Your task to perform on an android device: open app "Fetch Rewards" Image 0: 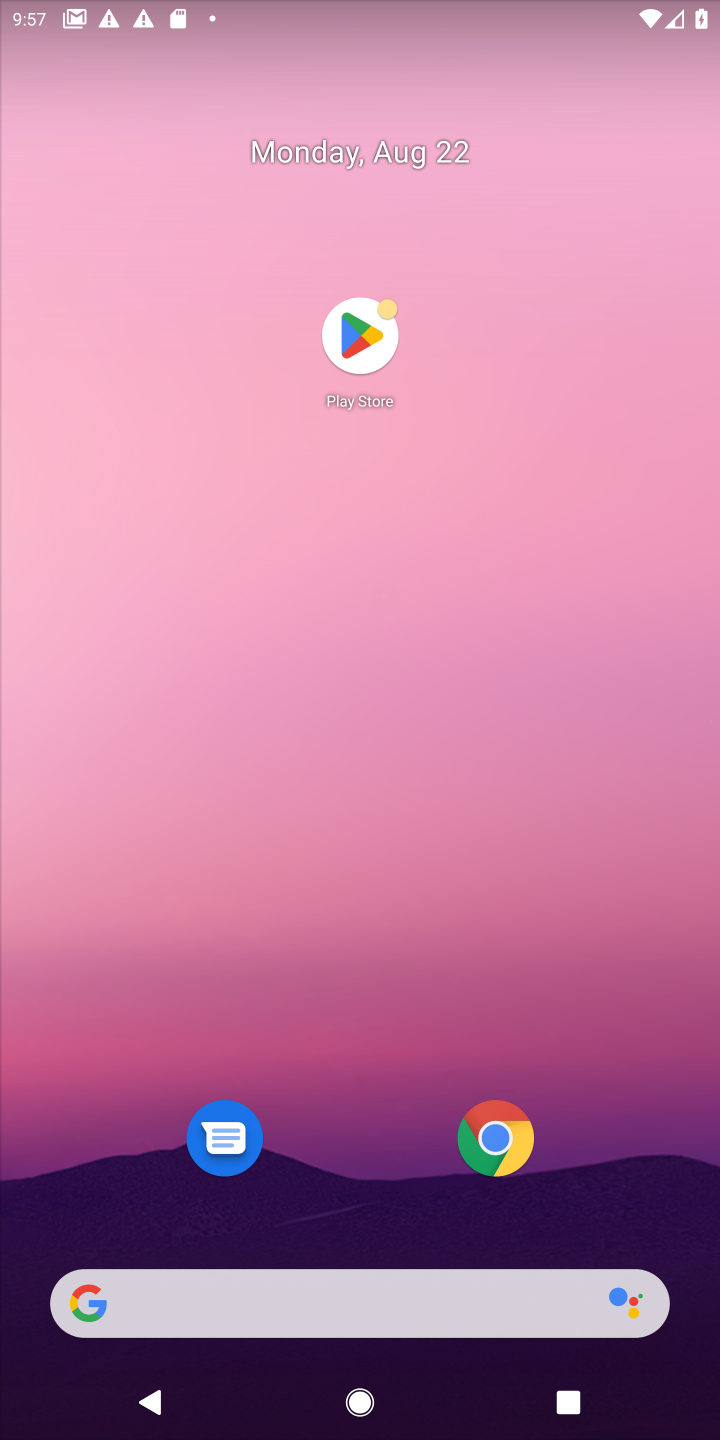
Step 0: click (381, 332)
Your task to perform on an android device: open app "Fetch Rewards" Image 1: 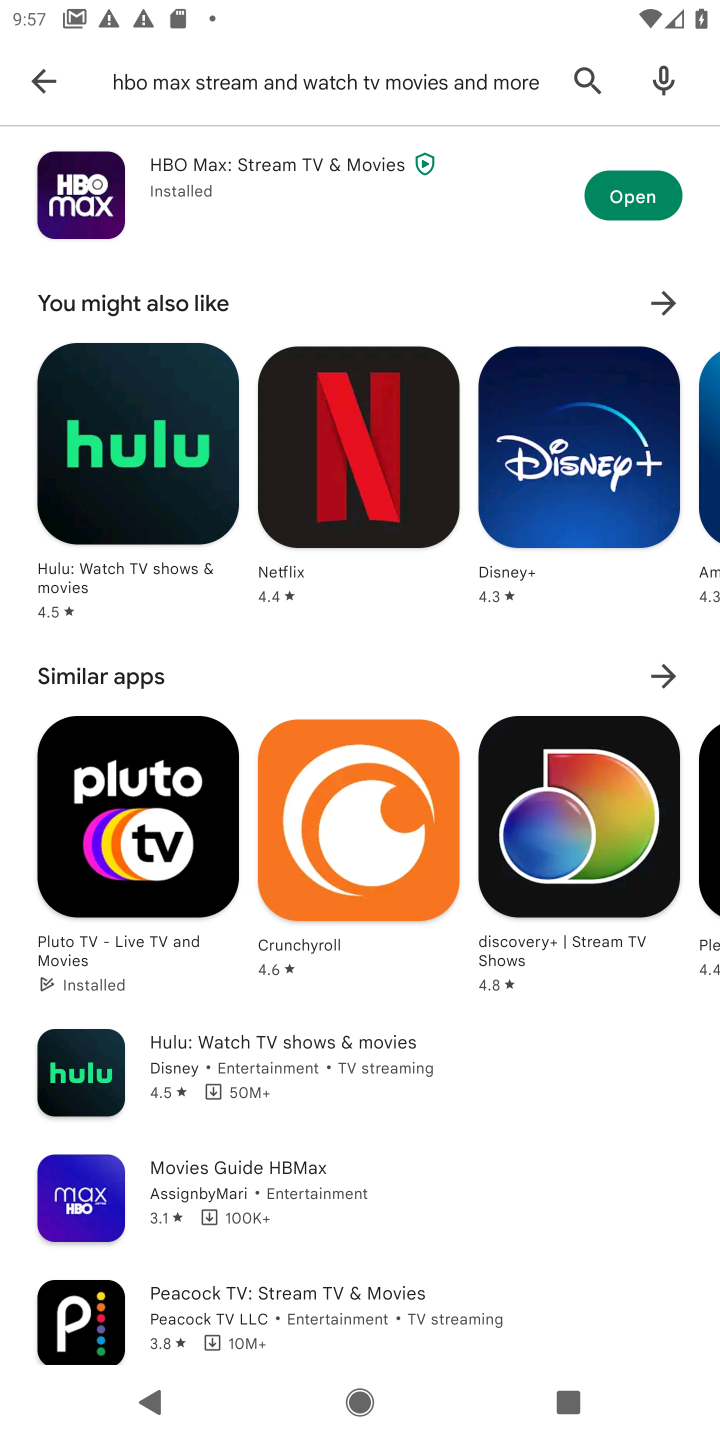
Step 1: click (574, 72)
Your task to perform on an android device: open app "Fetch Rewards" Image 2: 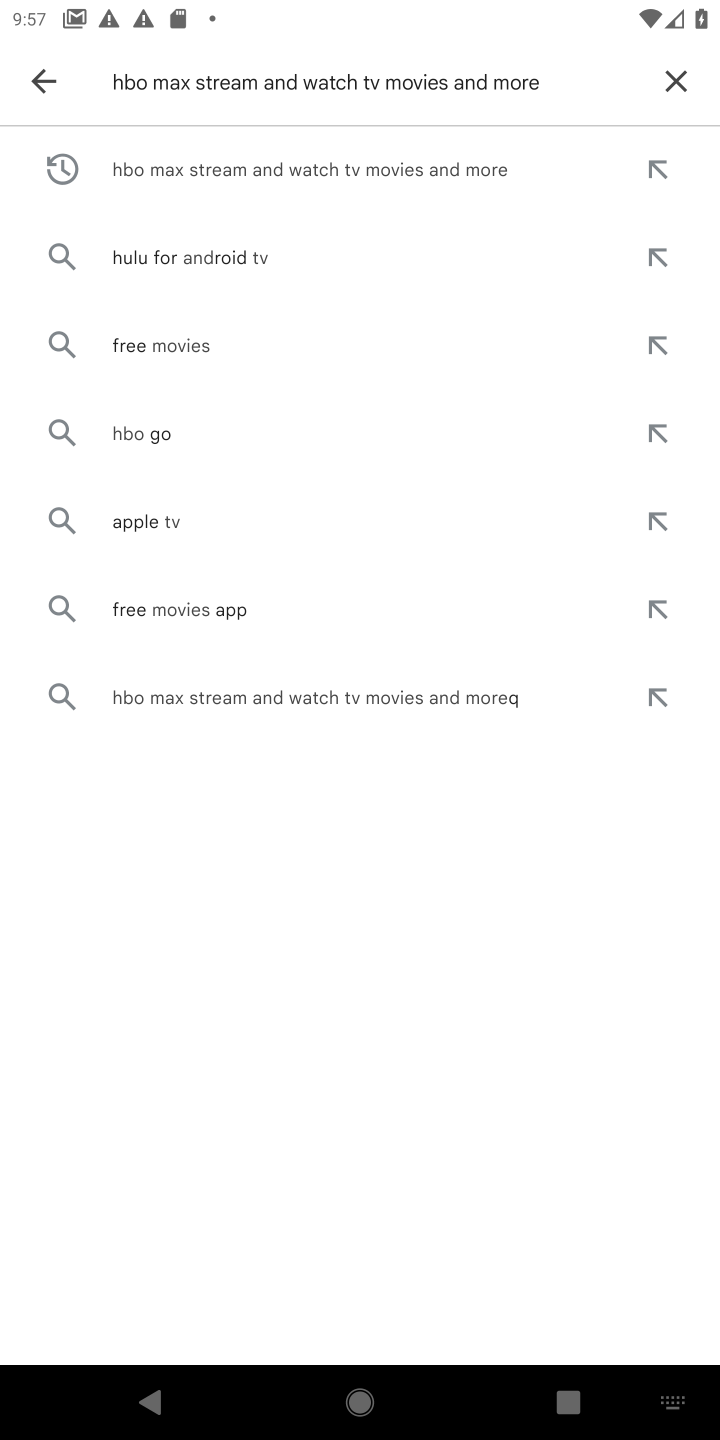
Step 2: click (674, 81)
Your task to perform on an android device: open app "Fetch Rewards" Image 3: 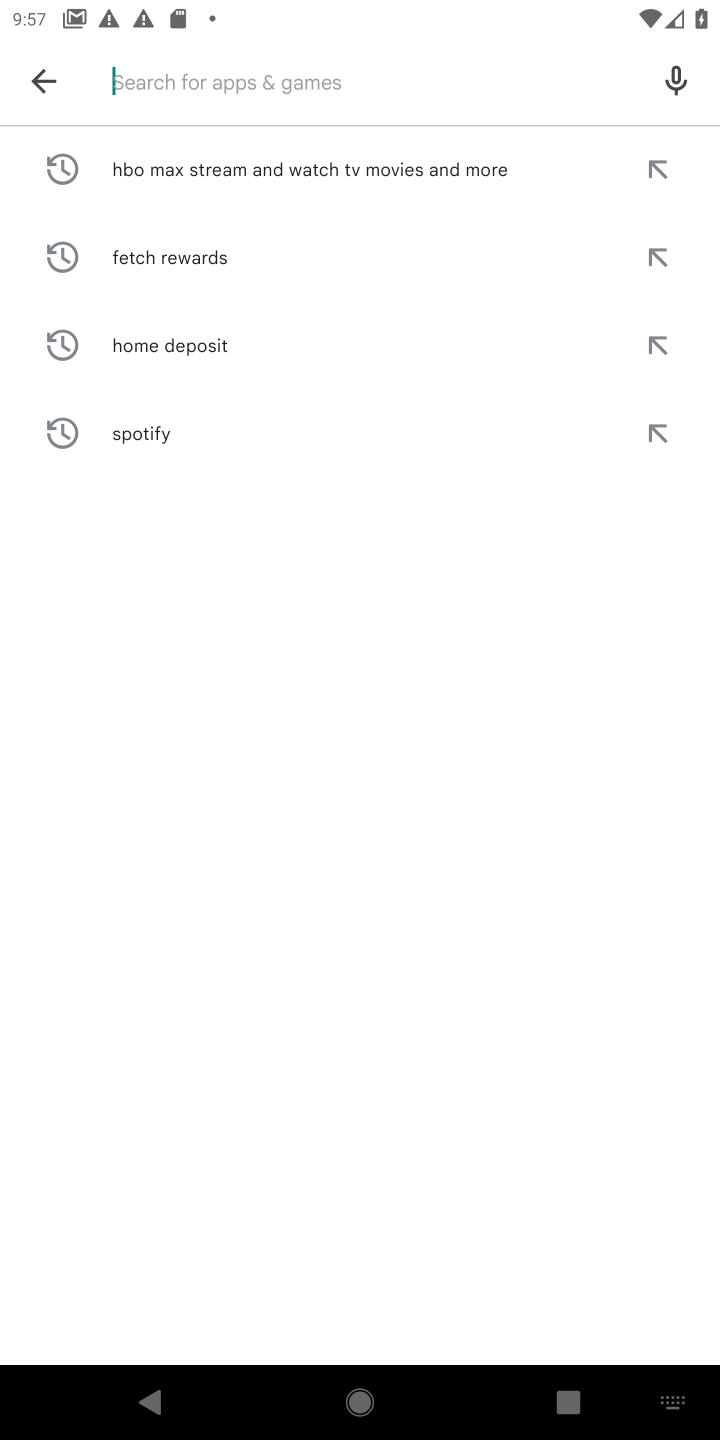
Step 3: type "Fetch Rewards""
Your task to perform on an android device: open app "Fetch Rewards" Image 4: 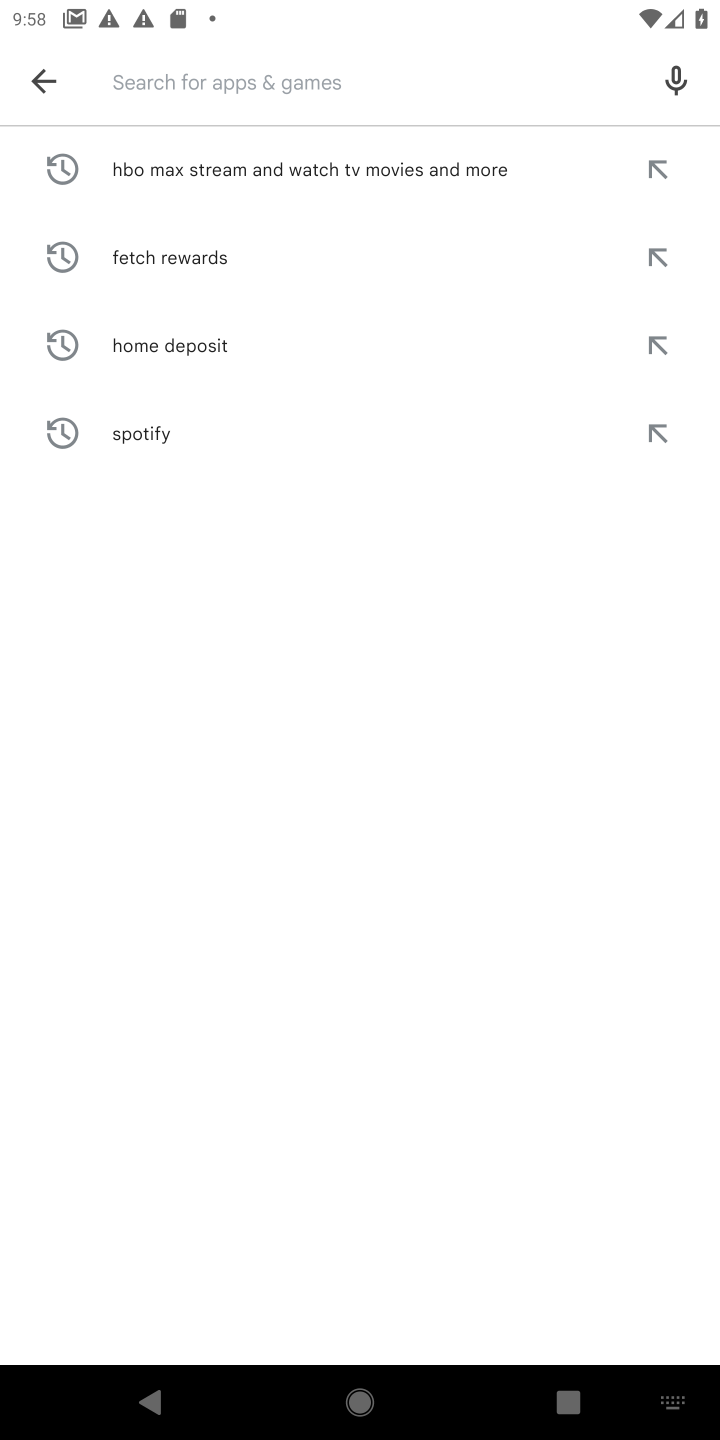
Step 4: type "fetch rewards"
Your task to perform on an android device: open app "Fetch Rewards" Image 5: 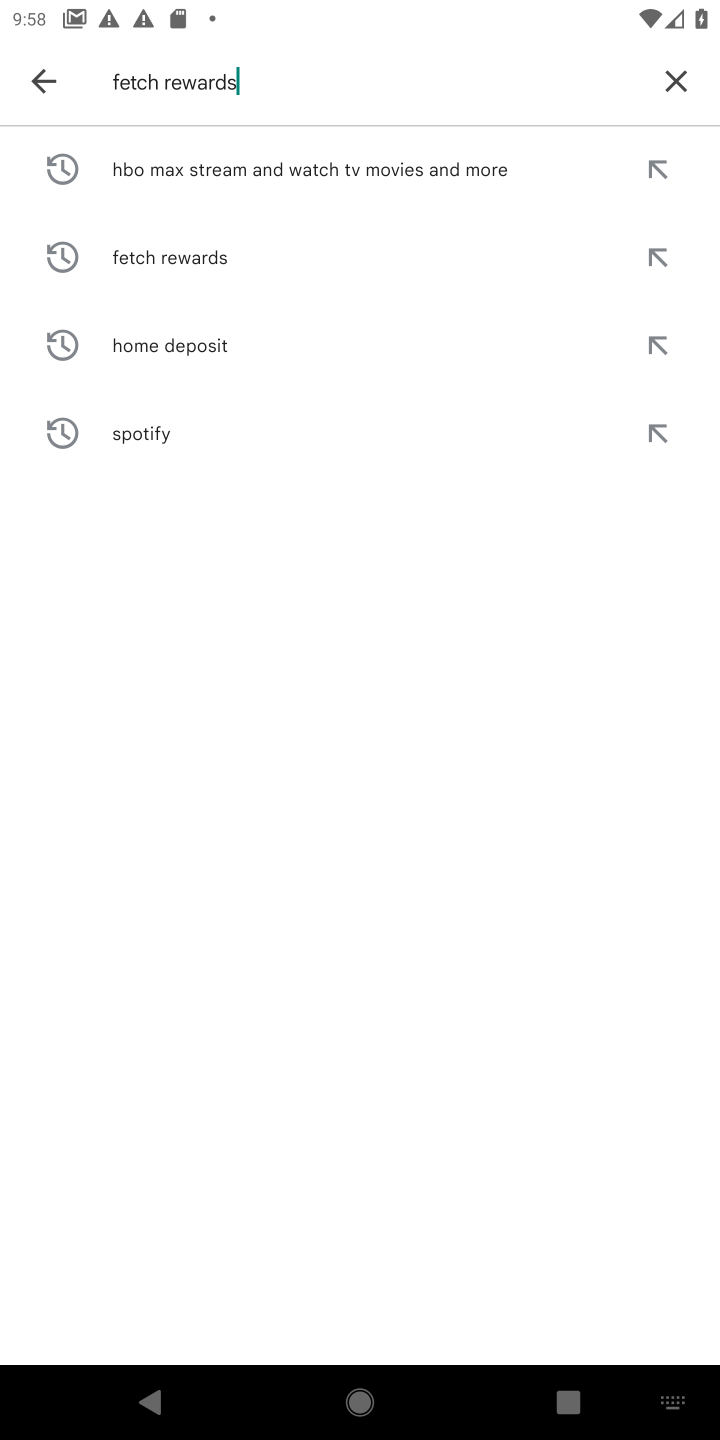
Step 5: type ""
Your task to perform on an android device: open app "Fetch Rewards" Image 6: 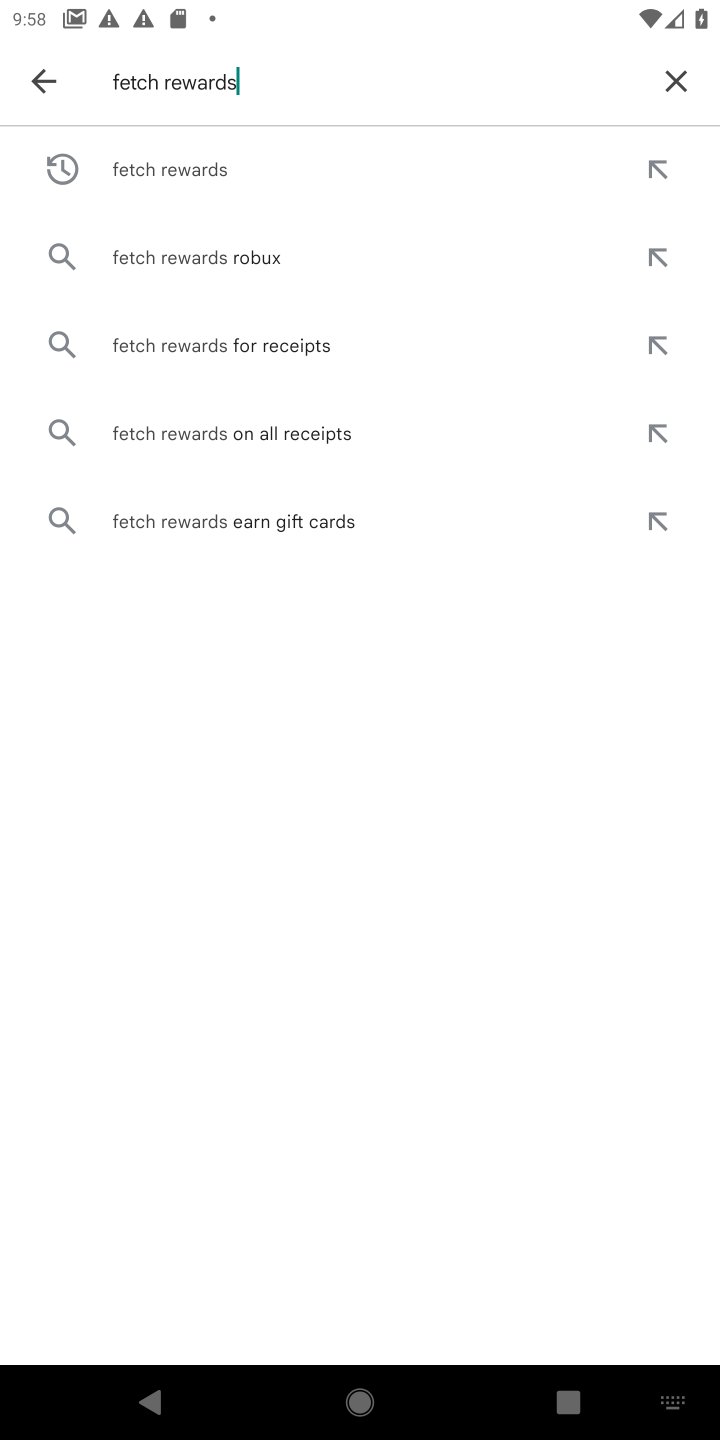
Step 6: click (185, 164)
Your task to perform on an android device: open app "Fetch Rewards" Image 7: 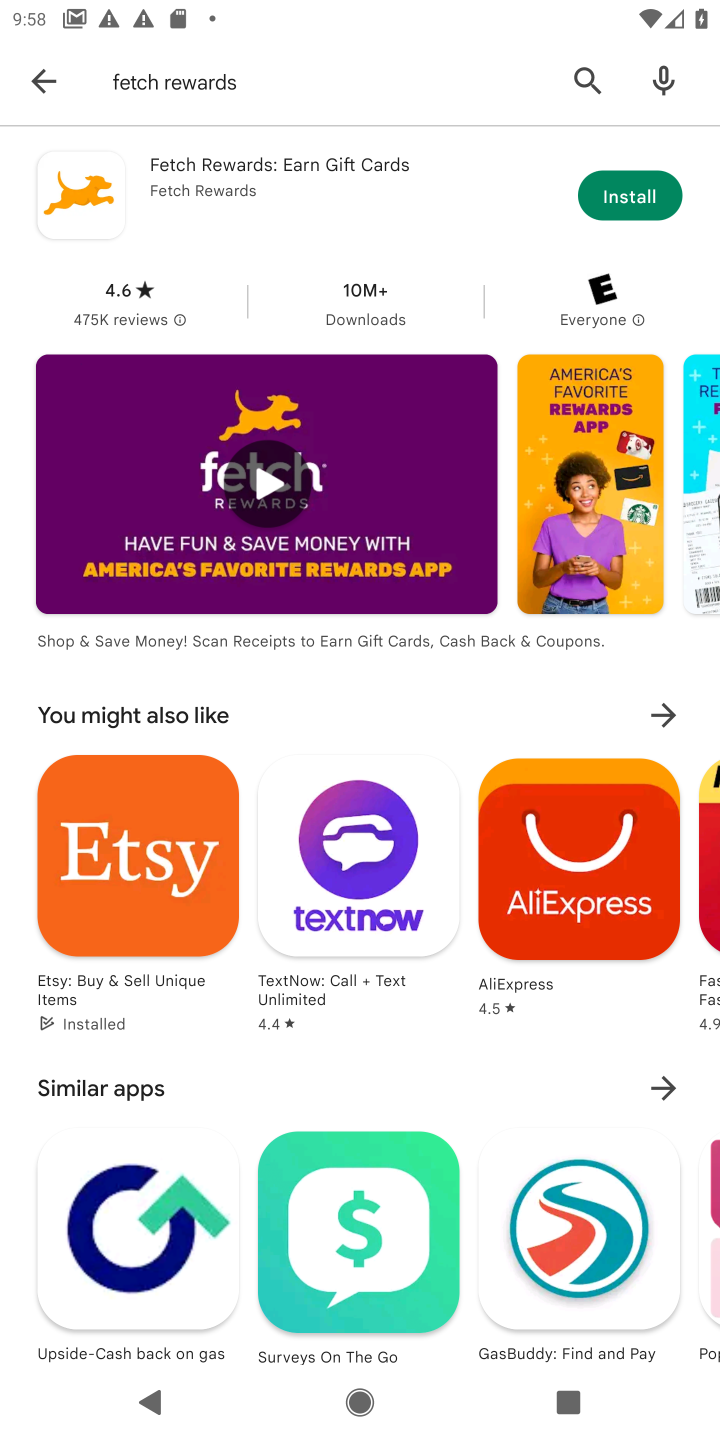
Step 7: task complete